Your task to perform on an android device: turn on showing notifications on the lock screen Image 0: 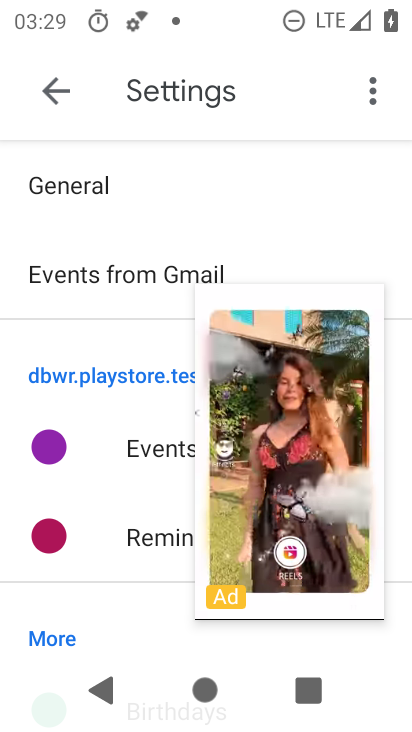
Step 0: press home button
Your task to perform on an android device: turn on showing notifications on the lock screen Image 1: 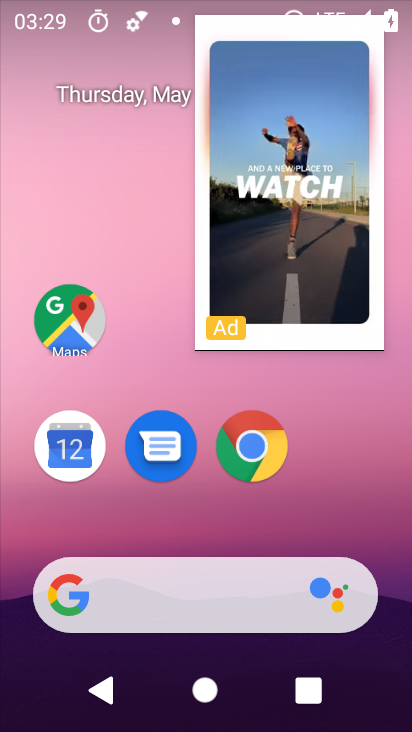
Step 1: drag from (381, 474) to (383, 160)
Your task to perform on an android device: turn on showing notifications on the lock screen Image 2: 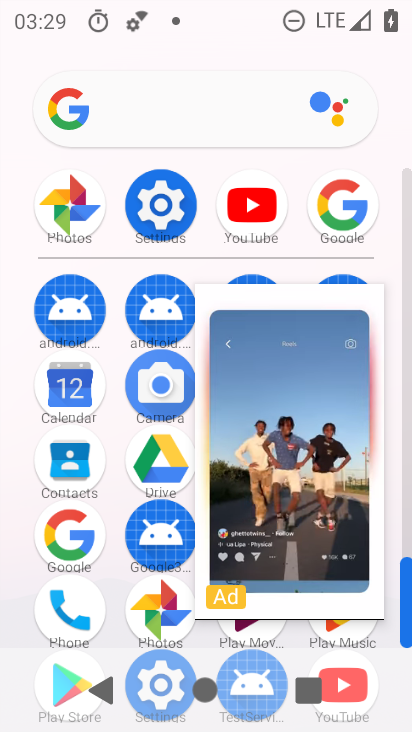
Step 2: click (195, 187)
Your task to perform on an android device: turn on showing notifications on the lock screen Image 3: 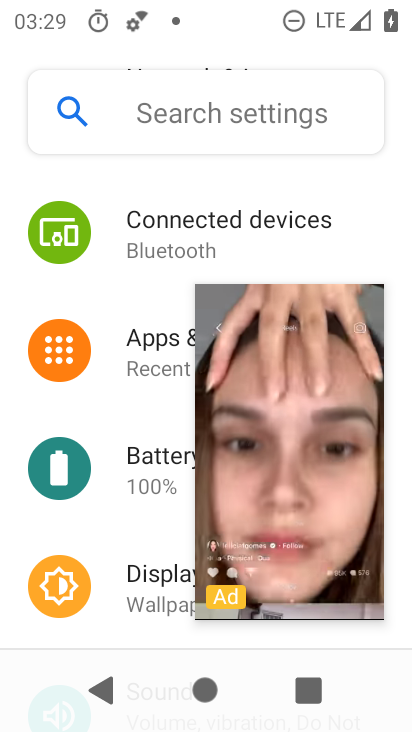
Step 3: click (352, 366)
Your task to perform on an android device: turn on showing notifications on the lock screen Image 4: 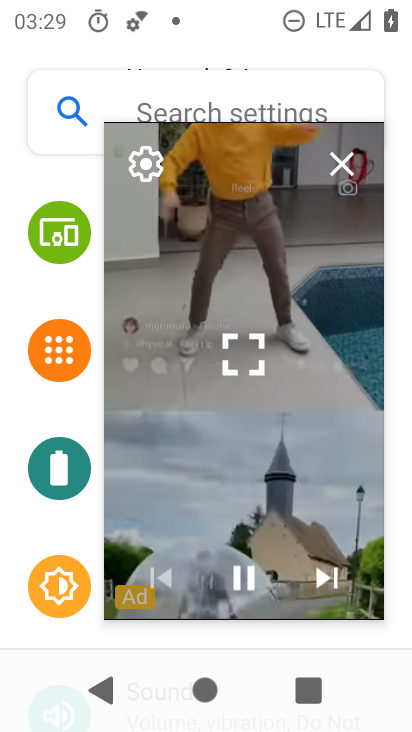
Step 4: click (348, 177)
Your task to perform on an android device: turn on showing notifications on the lock screen Image 5: 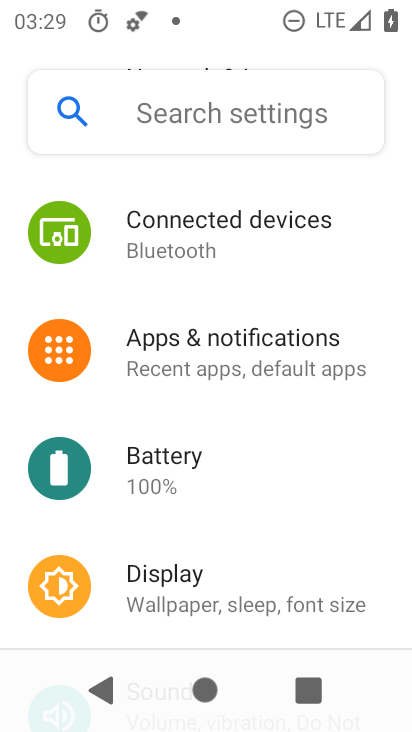
Step 5: click (230, 382)
Your task to perform on an android device: turn on showing notifications on the lock screen Image 6: 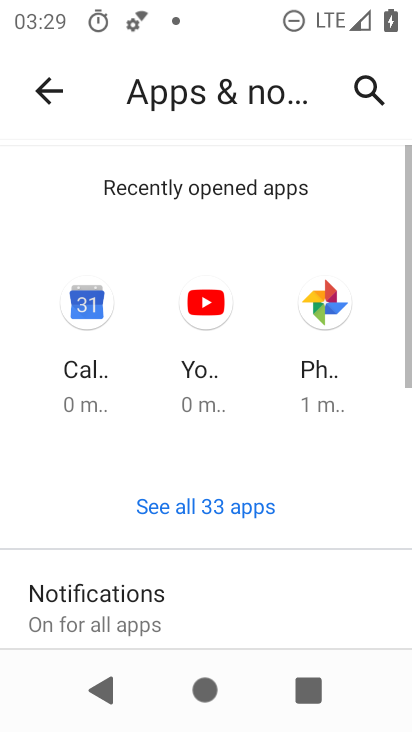
Step 6: drag from (241, 508) to (289, 236)
Your task to perform on an android device: turn on showing notifications on the lock screen Image 7: 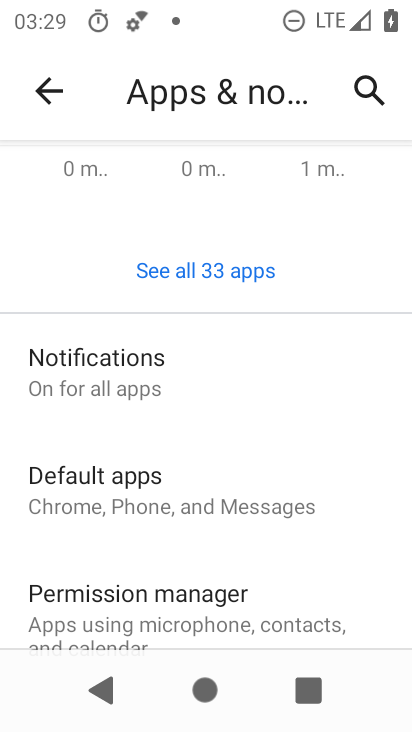
Step 7: drag from (195, 522) to (205, 413)
Your task to perform on an android device: turn on showing notifications on the lock screen Image 8: 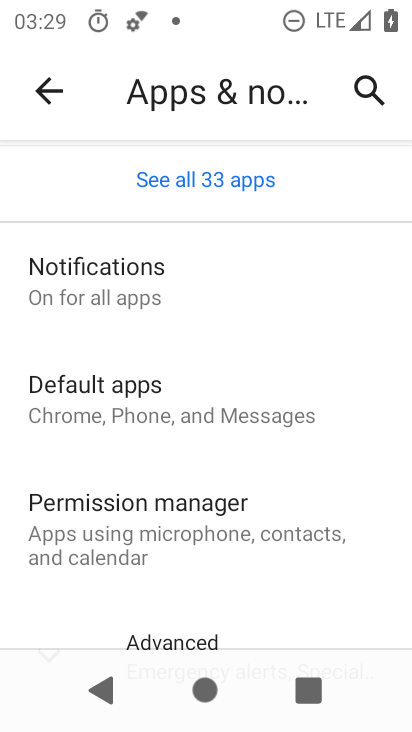
Step 8: click (180, 316)
Your task to perform on an android device: turn on showing notifications on the lock screen Image 9: 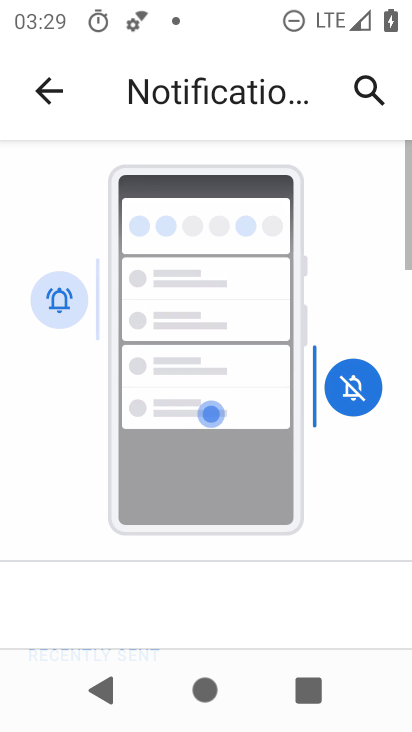
Step 9: drag from (151, 512) to (155, 230)
Your task to perform on an android device: turn on showing notifications on the lock screen Image 10: 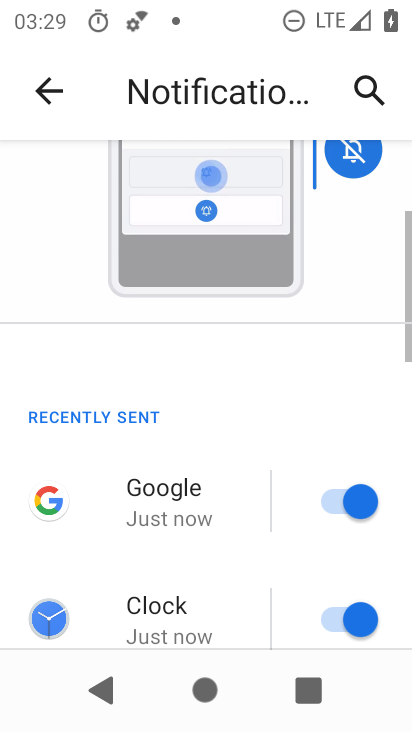
Step 10: drag from (157, 507) to (202, 269)
Your task to perform on an android device: turn on showing notifications on the lock screen Image 11: 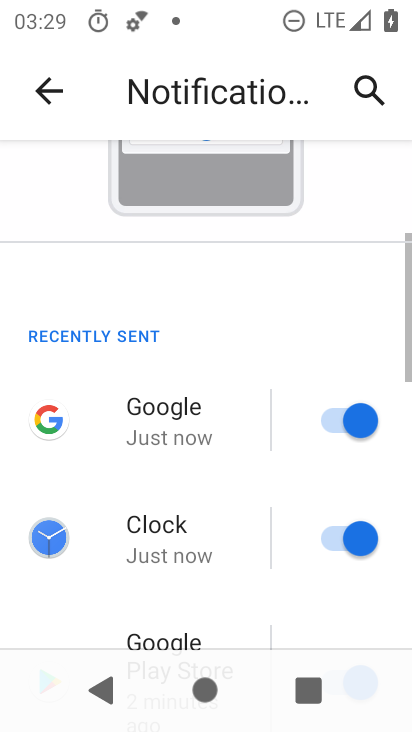
Step 11: drag from (203, 512) to (242, 296)
Your task to perform on an android device: turn on showing notifications on the lock screen Image 12: 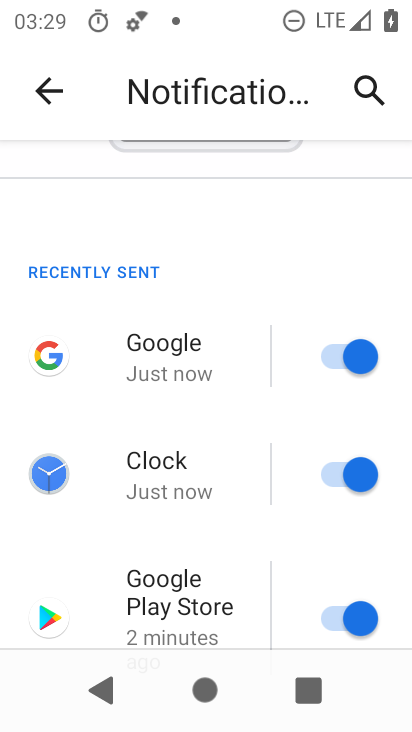
Step 12: drag from (238, 503) to (279, 286)
Your task to perform on an android device: turn on showing notifications on the lock screen Image 13: 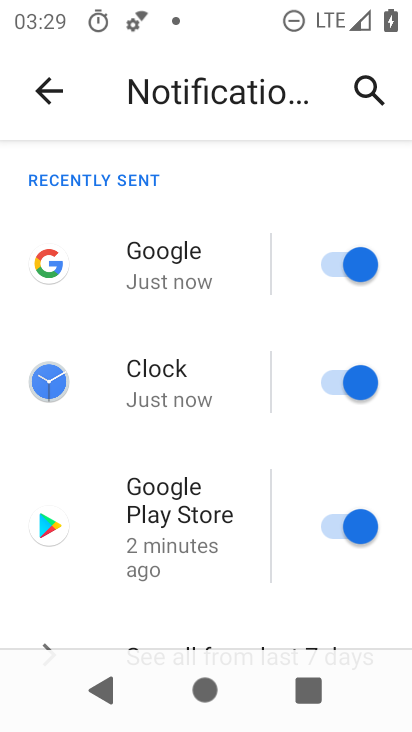
Step 13: drag from (254, 487) to (285, 291)
Your task to perform on an android device: turn on showing notifications on the lock screen Image 14: 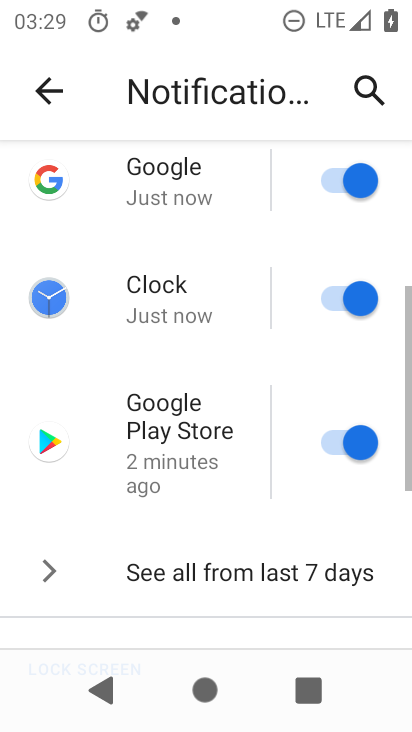
Step 14: drag from (255, 478) to (263, 323)
Your task to perform on an android device: turn on showing notifications on the lock screen Image 15: 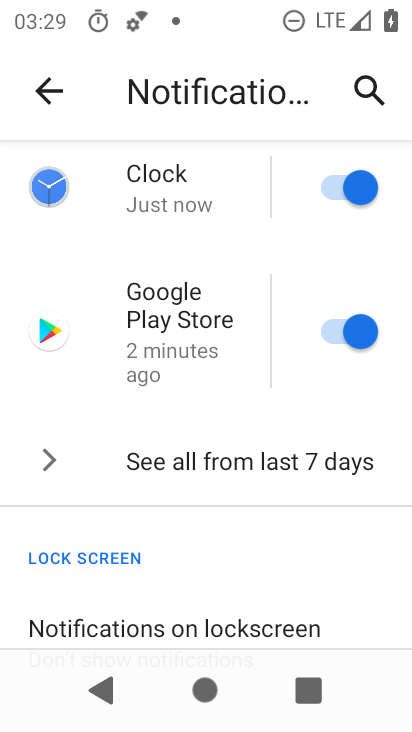
Step 15: drag from (279, 546) to (290, 314)
Your task to perform on an android device: turn on showing notifications on the lock screen Image 16: 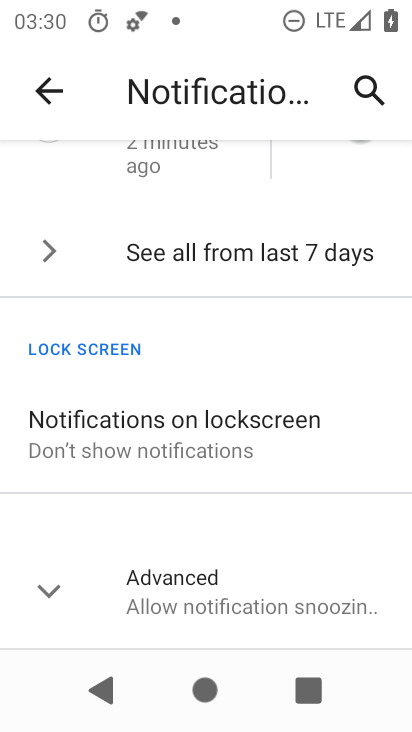
Step 16: click (265, 401)
Your task to perform on an android device: turn on showing notifications on the lock screen Image 17: 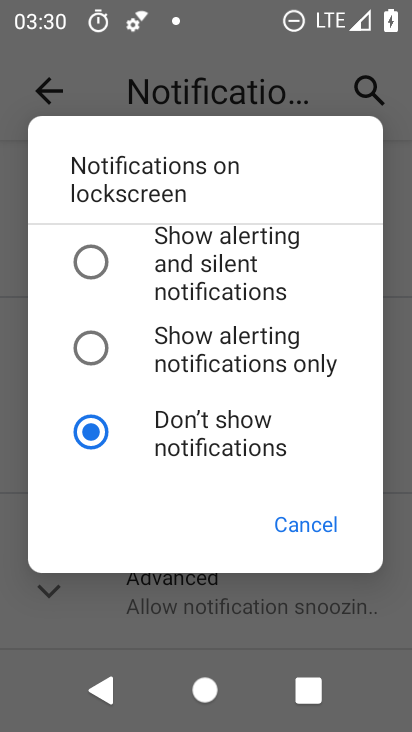
Step 17: click (244, 243)
Your task to perform on an android device: turn on showing notifications on the lock screen Image 18: 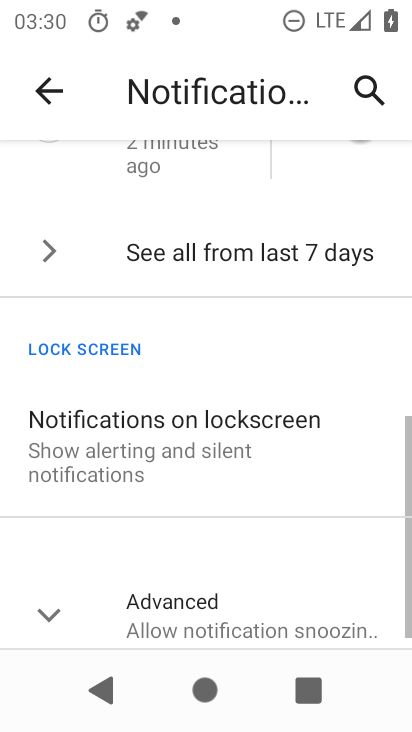
Step 18: task complete